Your task to perform on an android device: Show me popular videos on Youtube Image 0: 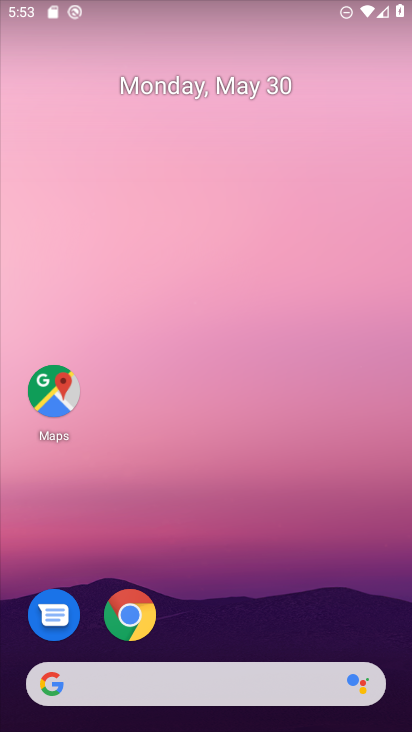
Step 0: click (144, 608)
Your task to perform on an android device: Show me popular videos on Youtube Image 1: 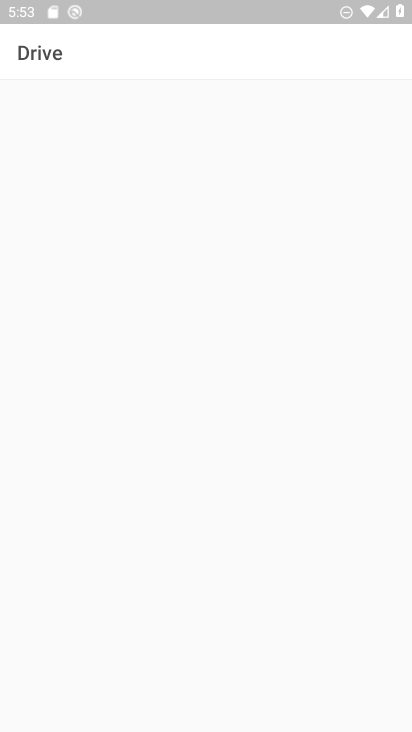
Step 1: press home button
Your task to perform on an android device: Show me popular videos on Youtube Image 2: 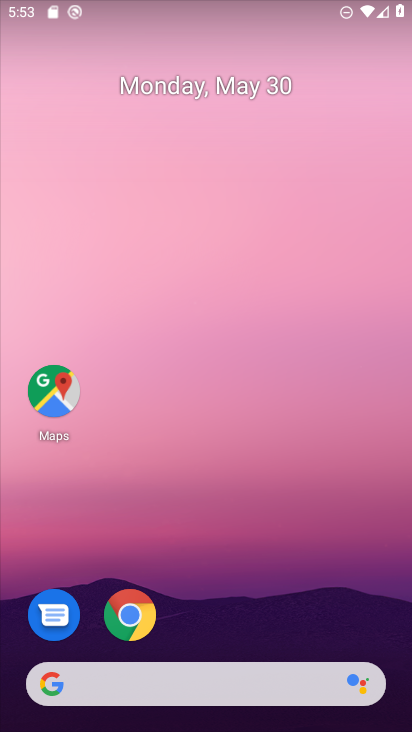
Step 2: drag from (207, 638) to (235, 22)
Your task to perform on an android device: Show me popular videos on Youtube Image 3: 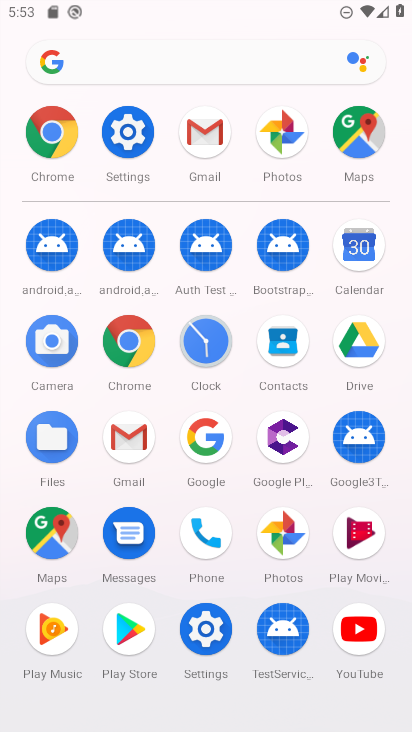
Step 3: click (353, 643)
Your task to perform on an android device: Show me popular videos on Youtube Image 4: 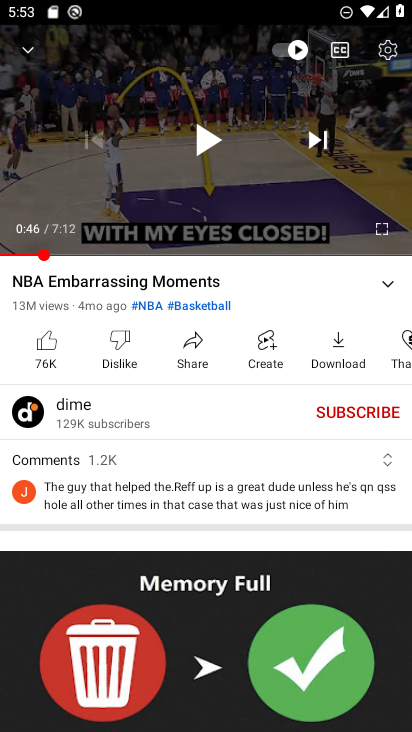
Step 4: click (38, 51)
Your task to perform on an android device: Show me popular videos on Youtube Image 5: 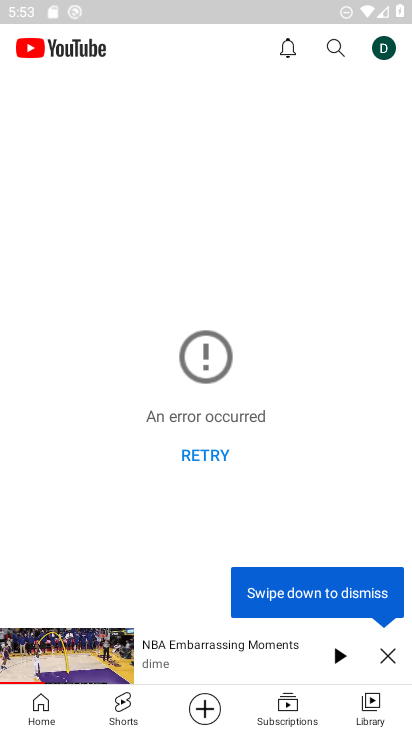
Step 5: click (34, 709)
Your task to perform on an android device: Show me popular videos on Youtube Image 6: 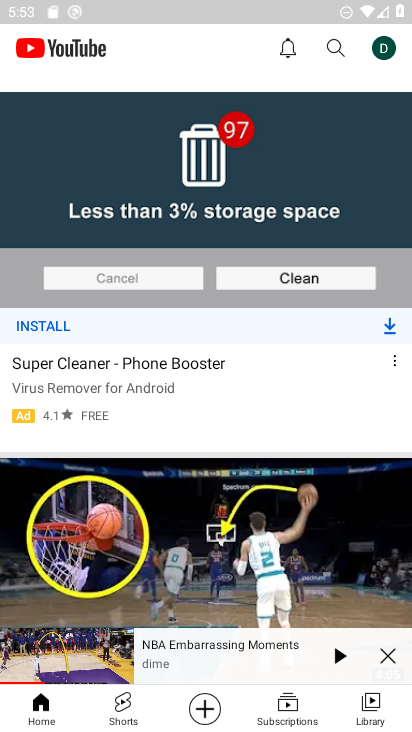
Step 6: click (52, 94)
Your task to perform on an android device: Show me popular videos on Youtube Image 7: 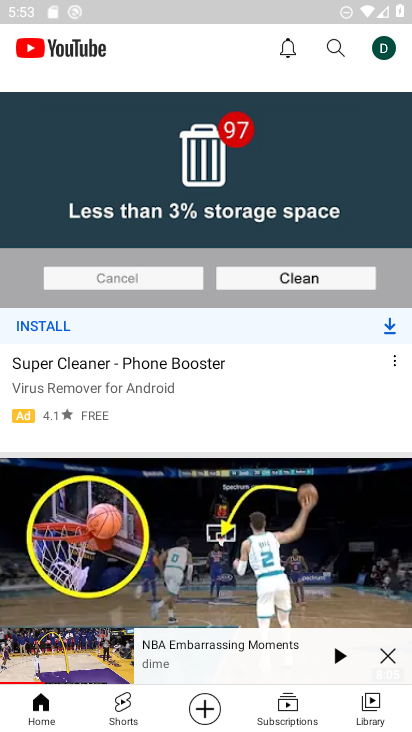
Step 7: drag from (52, 94) to (118, 626)
Your task to perform on an android device: Show me popular videos on Youtube Image 8: 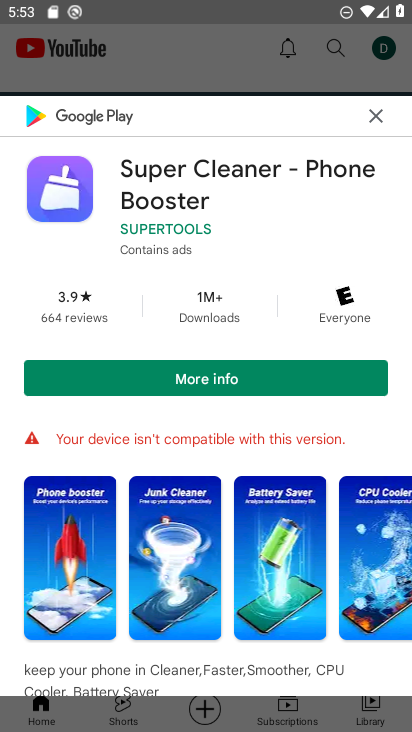
Step 8: click (379, 110)
Your task to perform on an android device: Show me popular videos on Youtube Image 9: 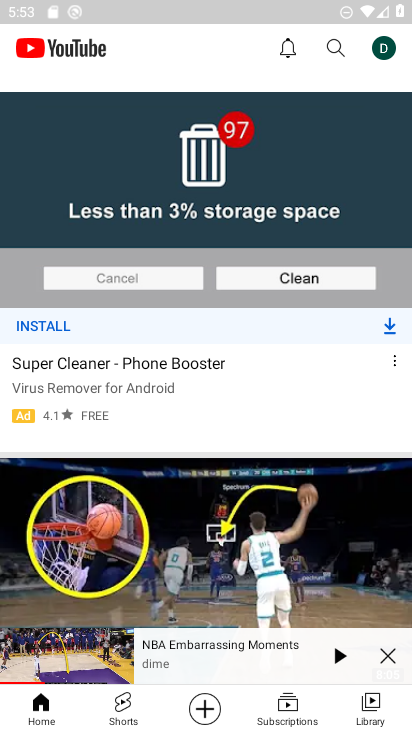
Step 9: drag from (143, 89) to (180, 650)
Your task to perform on an android device: Show me popular videos on Youtube Image 10: 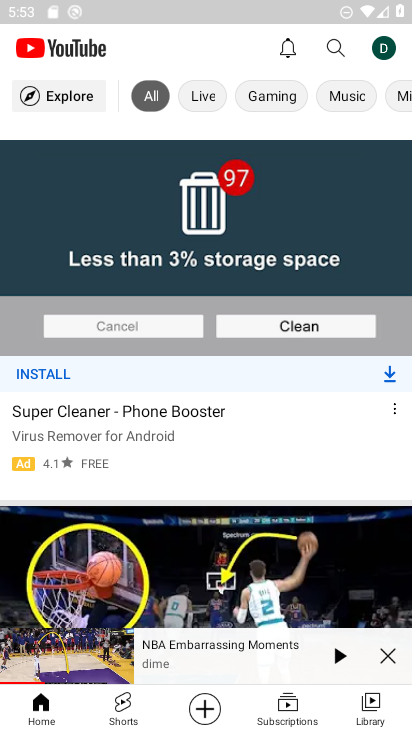
Step 10: click (64, 82)
Your task to perform on an android device: Show me popular videos on Youtube Image 11: 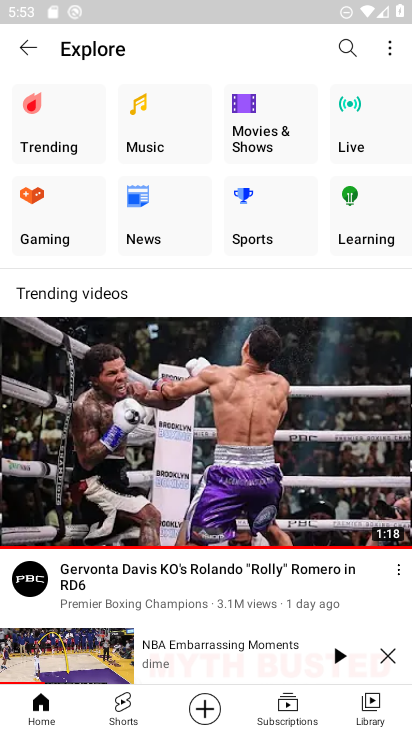
Step 11: click (50, 117)
Your task to perform on an android device: Show me popular videos on Youtube Image 12: 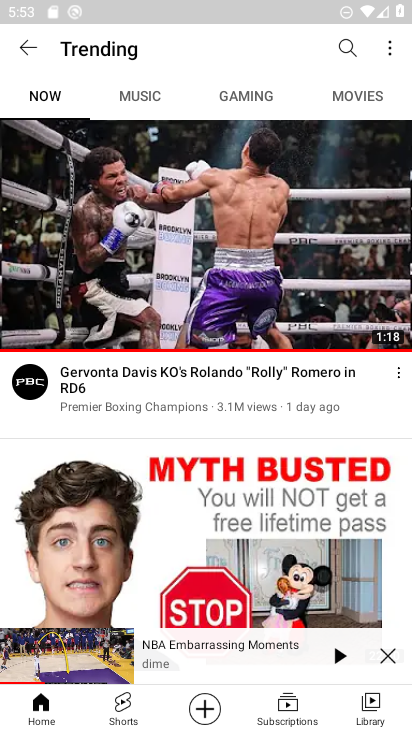
Step 12: task complete